Your task to perform on an android device: install app "Nova Launcher" Image 0: 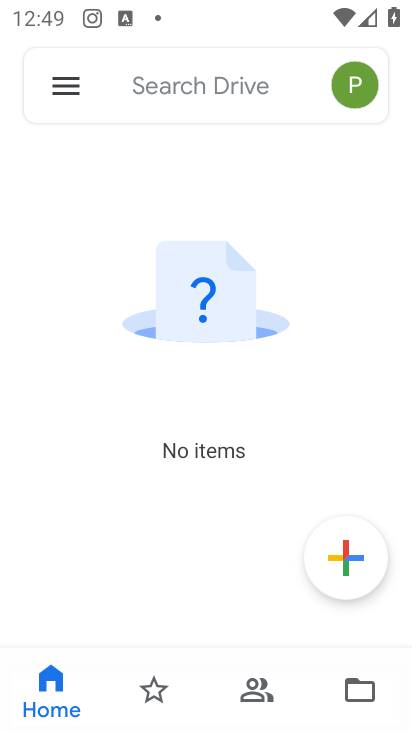
Step 0: press back button
Your task to perform on an android device: install app "Nova Launcher" Image 1: 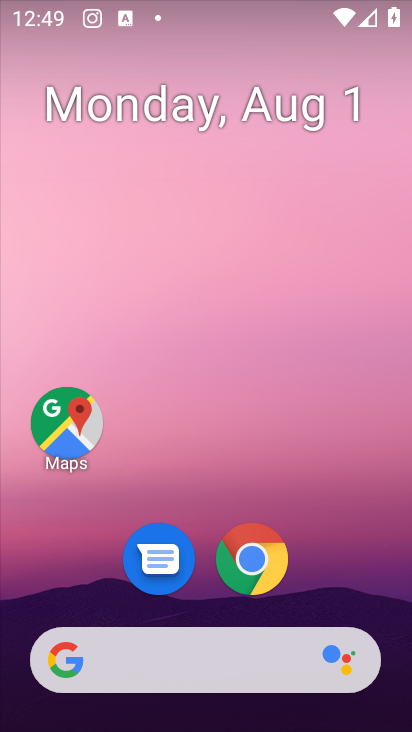
Step 1: drag from (95, 594) to (252, 90)
Your task to perform on an android device: install app "Nova Launcher" Image 2: 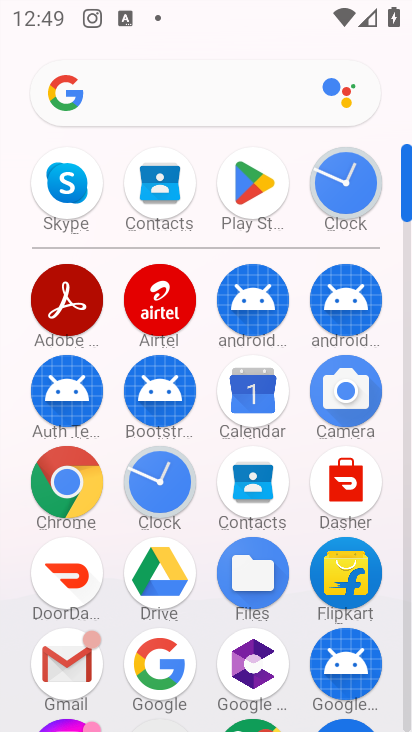
Step 2: click (254, 192)
Your task to perform on an android device: install app "Nova Launcher" Image 3: 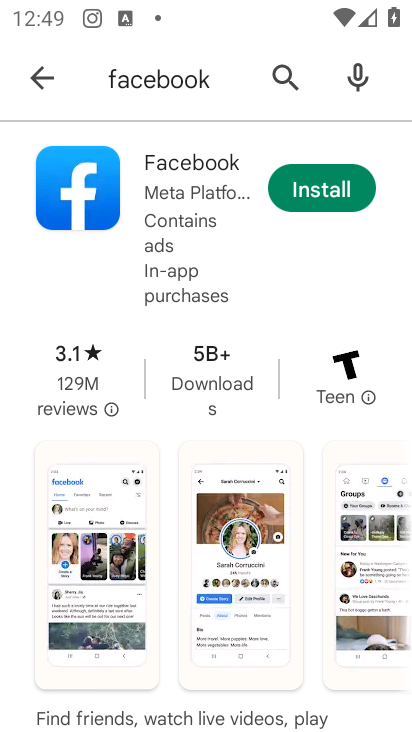
Step 3: click (291, 65)
Your task to perform on an android device: install app "Nova Launcher" Image 4: 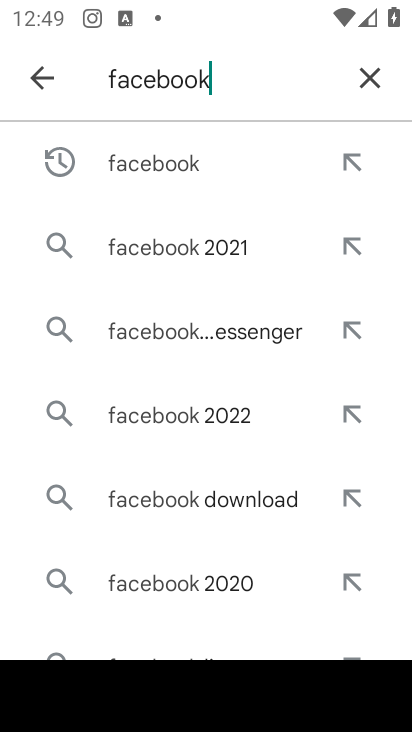
Step 4: click (378, 85)
Your task to perform on an android device: install app "Nova Launcher" Image 5: 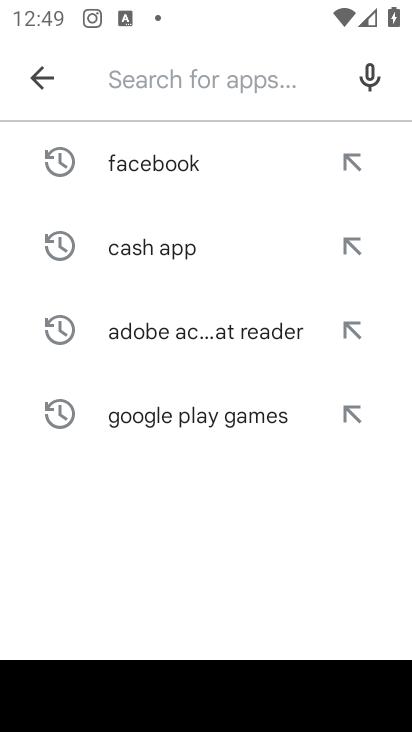
Step 5: click (220, 79)
Your task to perform on an android device: install app "Nova Launcher" Image 6: 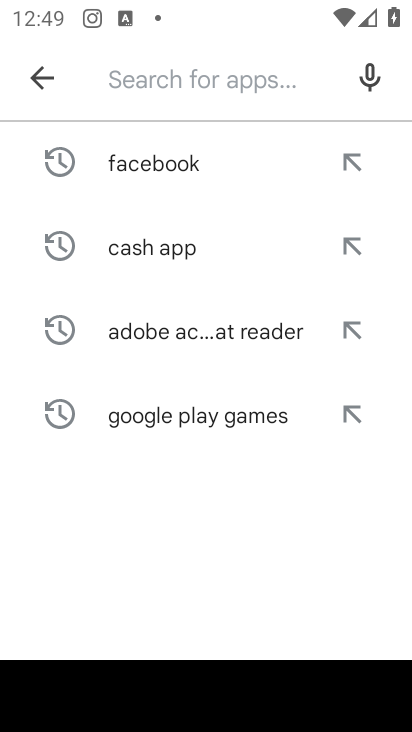
Step 6: type "nova launcher"
Your task to perform on an android device: install app "Nova Launcher" Image 7: 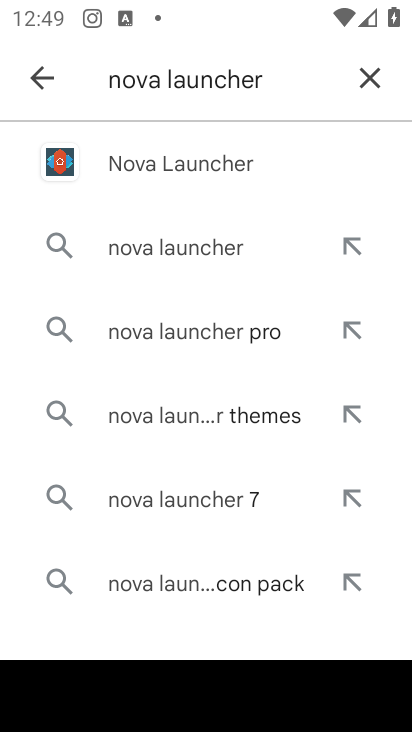
Step 7: click (237, 160)
Your task to perform on an android device: install app "Nova Launcher" Image 8: 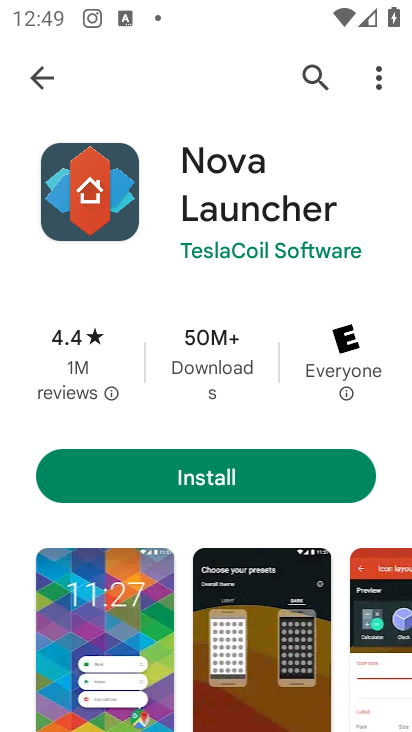
Step 8: click (266, 475)
Your task to perform on an android device: install app "Nova Launcher" Image 9: 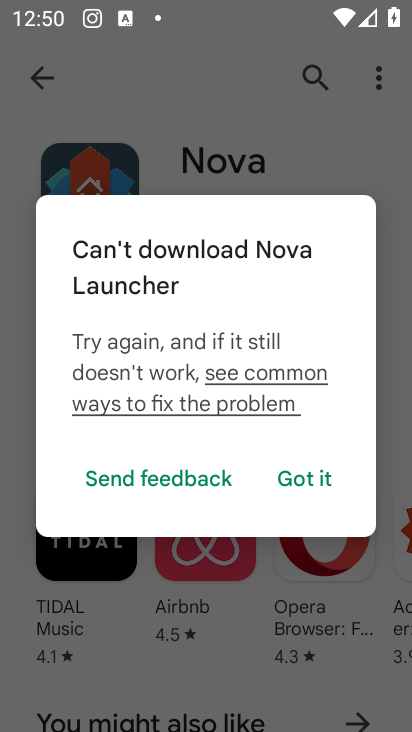
Step 9: click (308, 467)
Your task to perform on an android device: install app "Nova Launcher" Image 10: 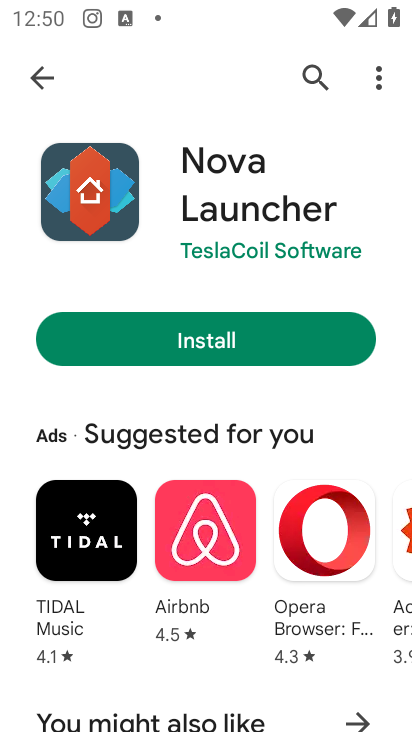
Step 10: task complete